Your task to perform on an android device: add a contact Image 0: 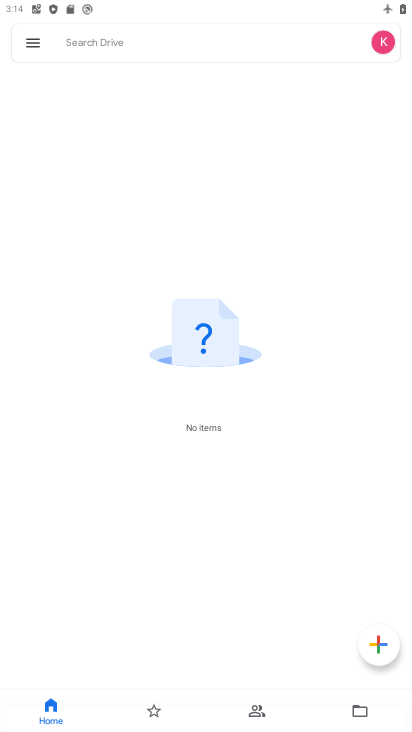
Step 0: press home button
Your task to perform on an android device: add a contact Image 1: 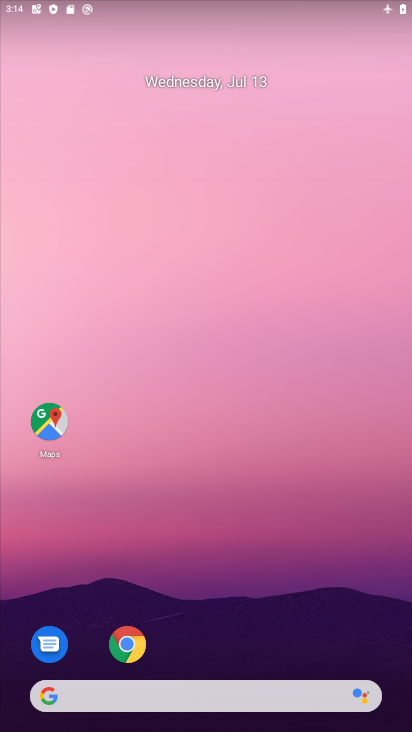
Step 1: drag from (384, 595) to (278, 68)
Your task to perform on an android device: add a contact Image 2: 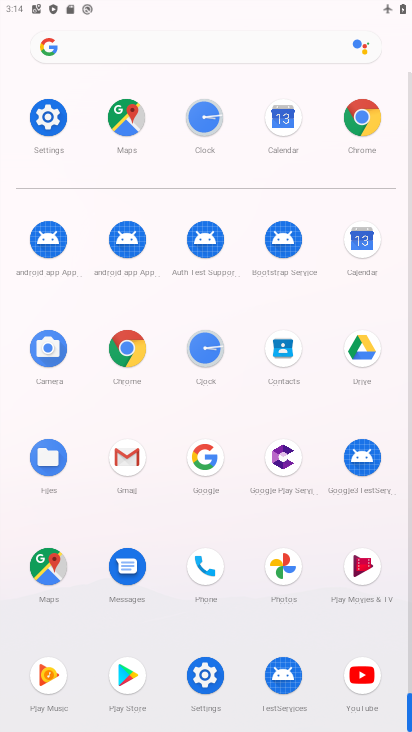
Step 2: click (274, 354)
Your task to perform on an android device: add a contact Image 3: 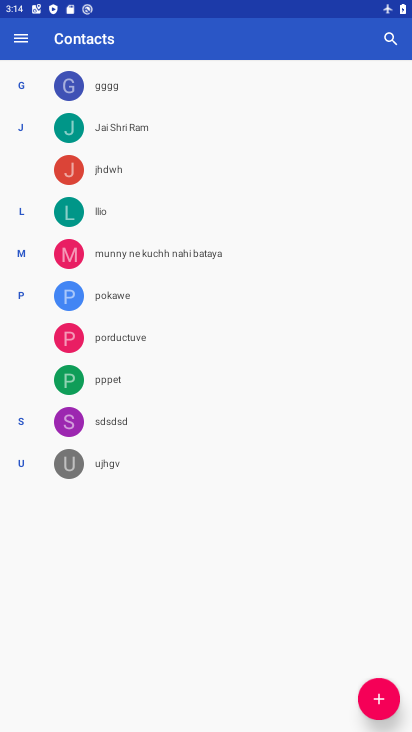
Step 3: click (381, 690)
Your task to perform on an android device: add a contact Image 4: 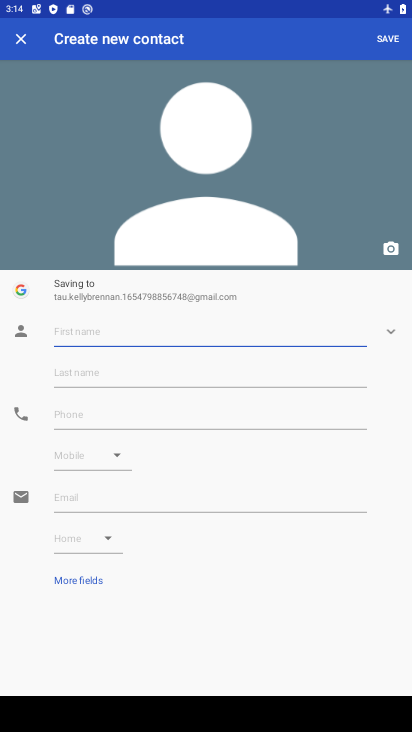
Step 4: type "let ke "
Your task to perform on an android device: add a contact Image 5: 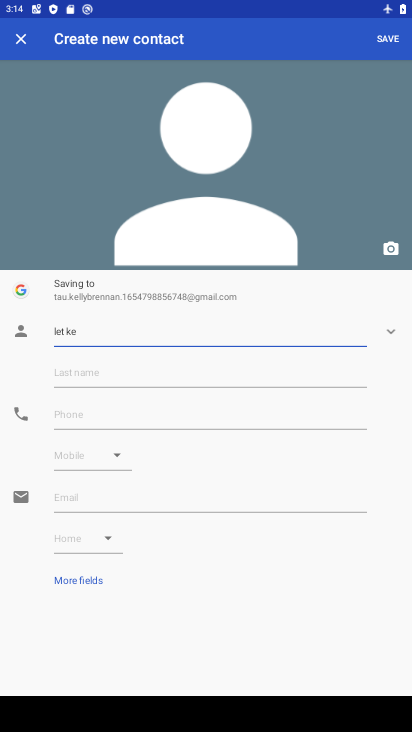
Step 5: click (383, 35)
Your task to perform on an android device: add a contact Image 6: 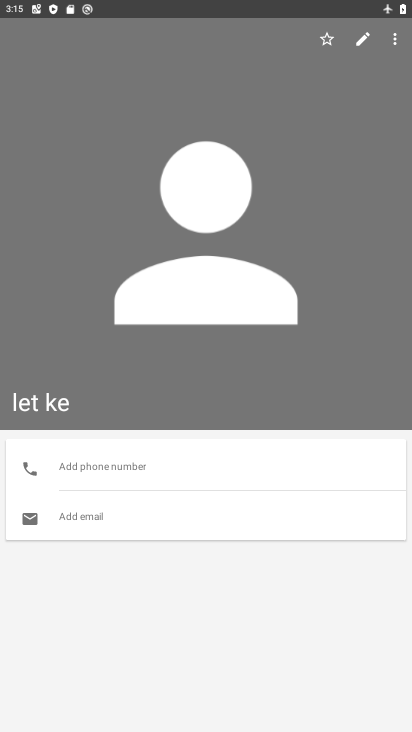
Step 6: task complete